Your task to perform on an android device: Search for Mexican restaurants on Maps Image 0: 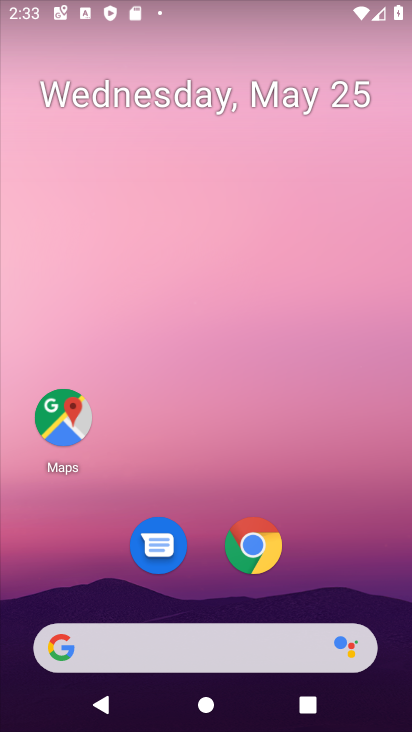
Step 0: click (235, 637)
Your task to perform on an android device: Search for Mexican restaurants on Maps Image 1: 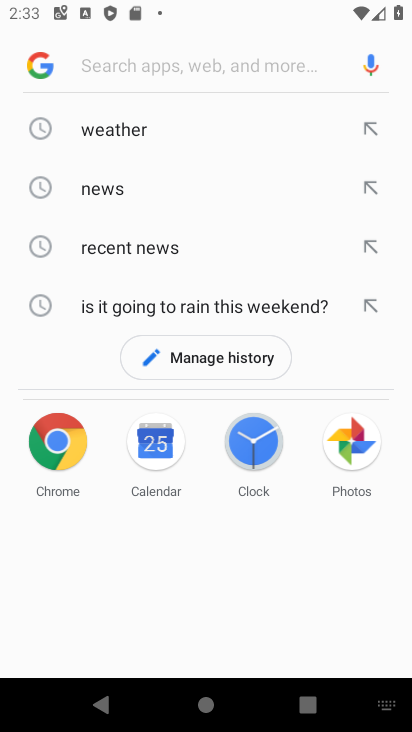
Step 1: press home button
Your task to perform on an android device: Search for Mexican restaurants on Maps Image 2: 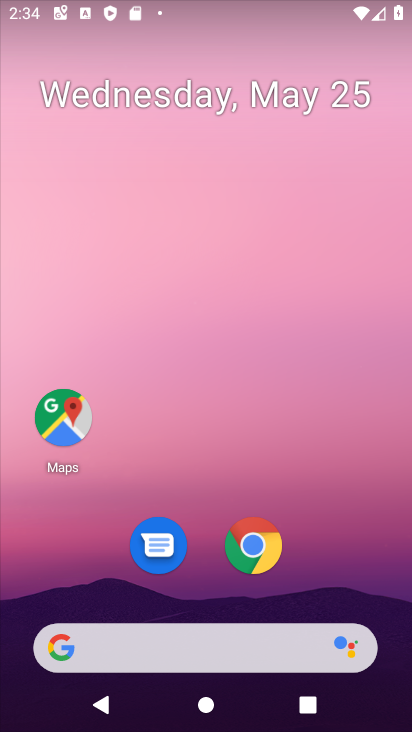
Step 2: click (78, 418)
Your task to perform on an android device: Search for Mexican restaurants on Maps Image 3: 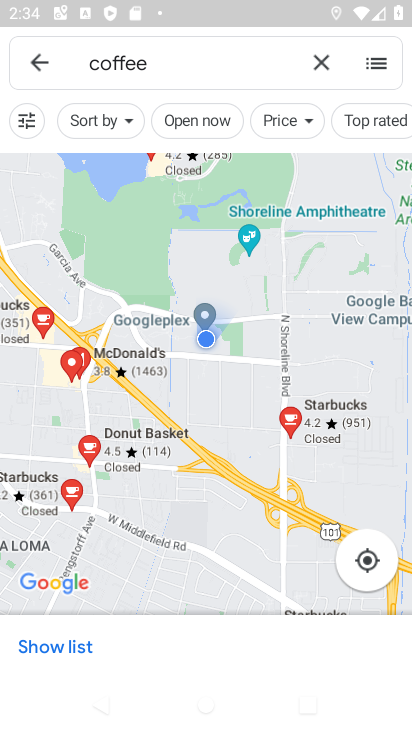
Step 3: click (328, 64)
Your task to perform on an android device: Search for Mexican restaurants on Maps Image 4: 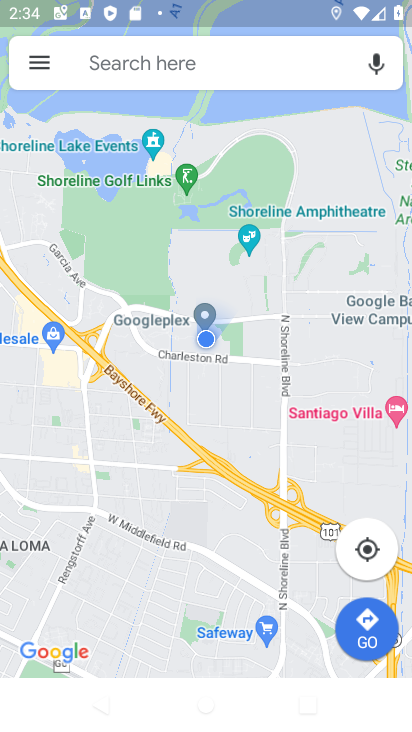
Step 4: click (174, 54)
Your task to perform on an android device: Search for Mexican restaurants on Maps Image 5: 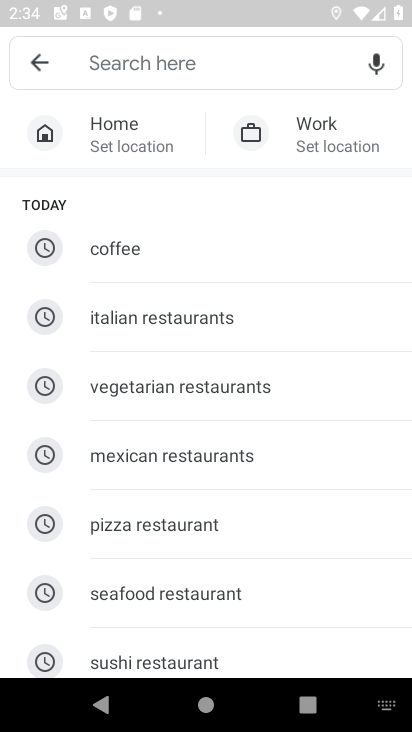
Step 5: task complete